Your task to perform on an android device: Open internet settings Image 0: 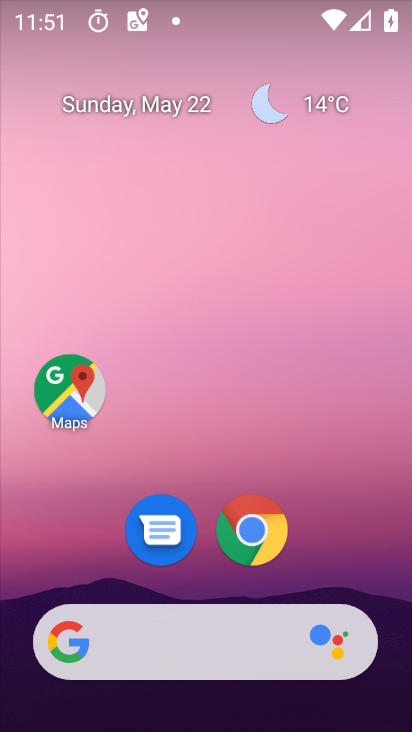
Step 0: drag from (404, 548) to (397, 202)
Your task to perform on an android device: Open internet settings Image 1: 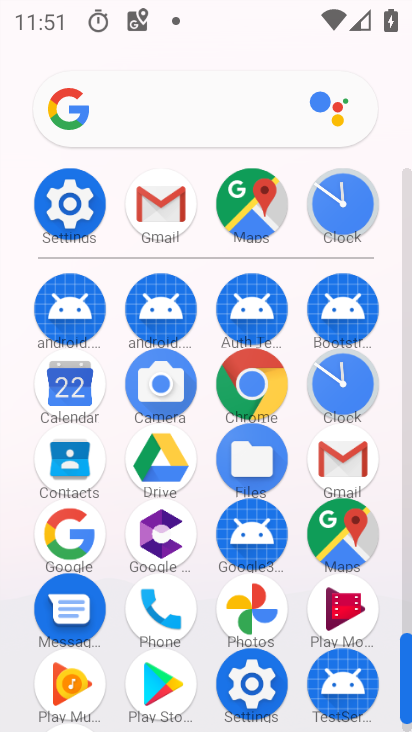
Step 1: click (57, 200)
Your task to perform on an android device: Open internet settings Image 2: 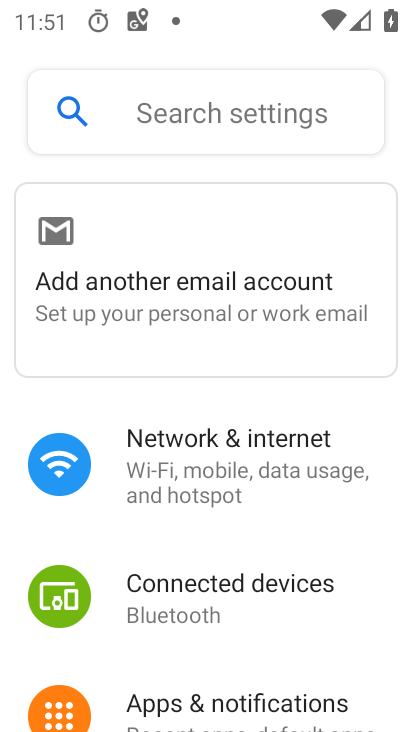
Step 2: click (298, 543)
Your task to perform on an android device: Open internet settings Image 3: 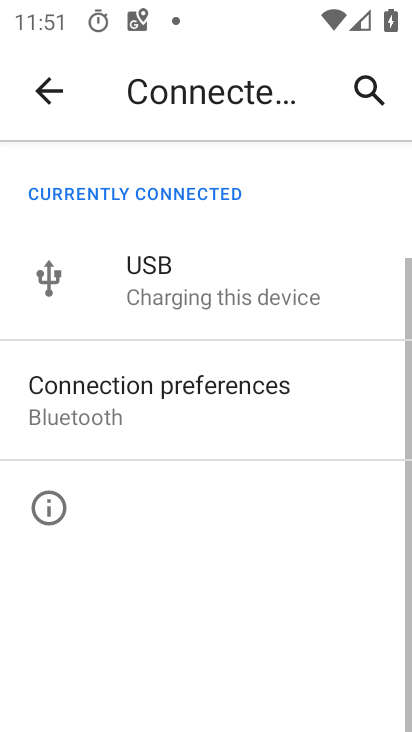
Step 3: click (298, 543)
Your task to perform on an android device: Open internet settings Image 4: 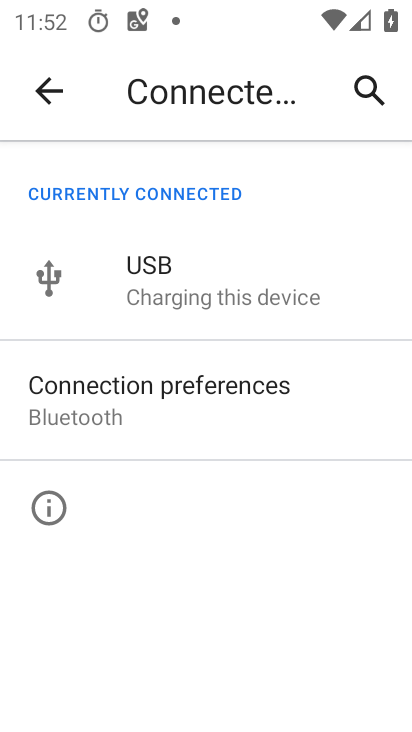
Step 4: click (44, 91)
Your task to perform on an android device: Open internet settings Image 5: 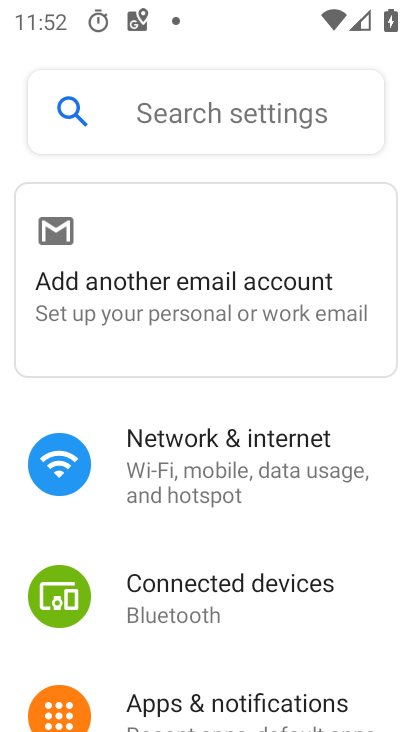
Step 5: click (221, 448)
Your task to perform on an android device: Open internet settings Image 6: 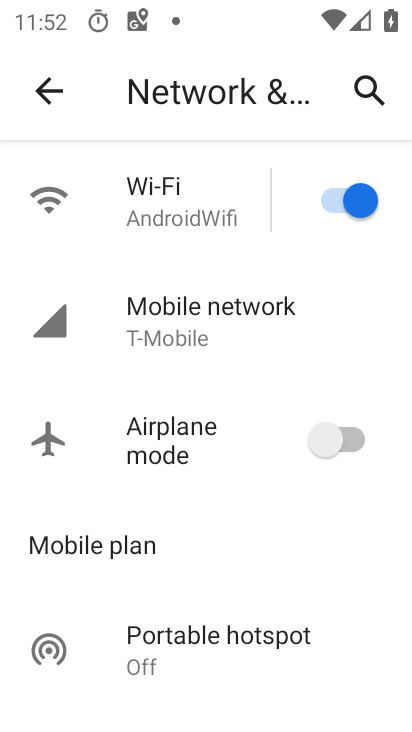
Step 6: click (161, 197)
Your task to perform on an android device: Open internet settings Image 7: 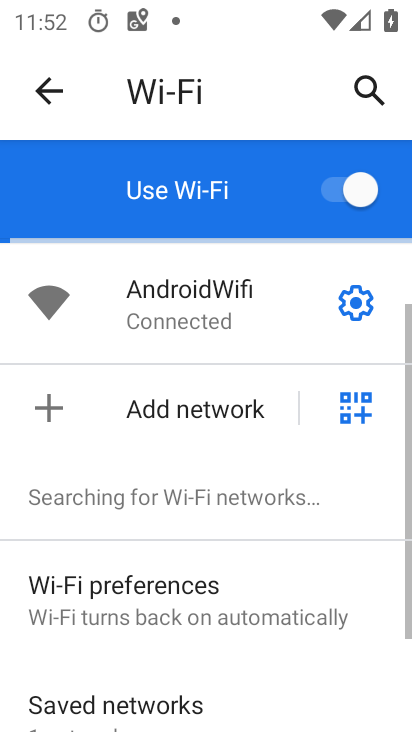
Step 7: click (346, 300)
Your task to perform on an android device: Open internet settings Image 8: 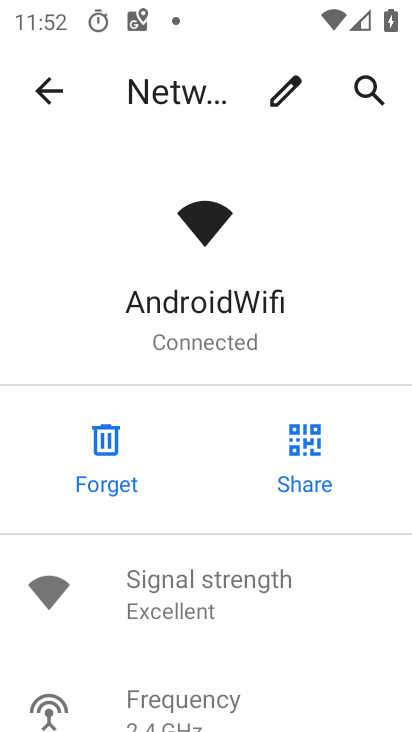
Step 8: task complete